Your task to perform on an android device: What is the recent news? Image 0: 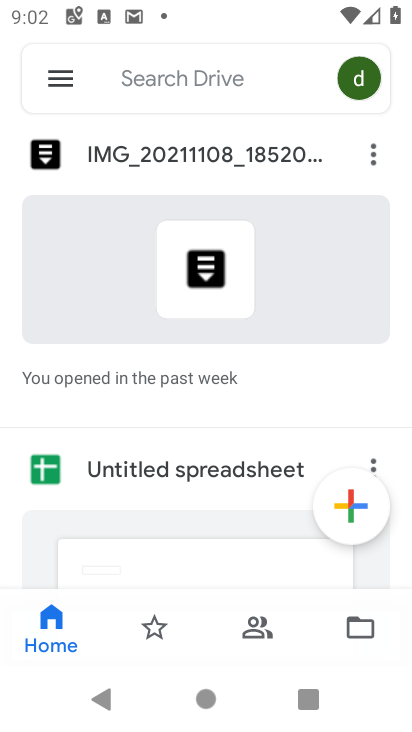
Step 0: press home button
Your task to perform on an android device: What is the recent news? Image 1: 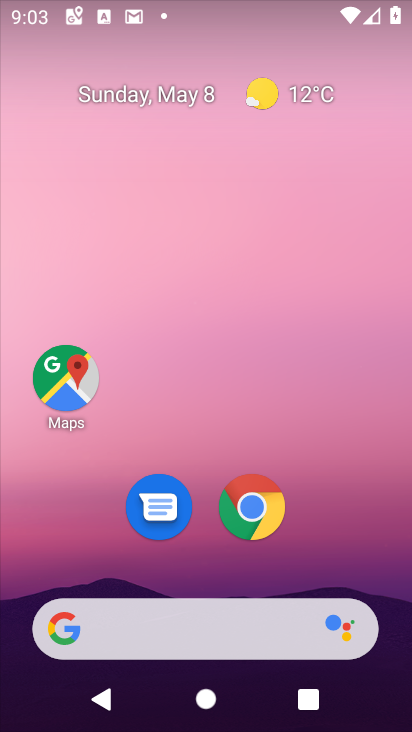
Step 1: click (271, 628)
Your task to perform on an android device: What is the recent news? Image 2: 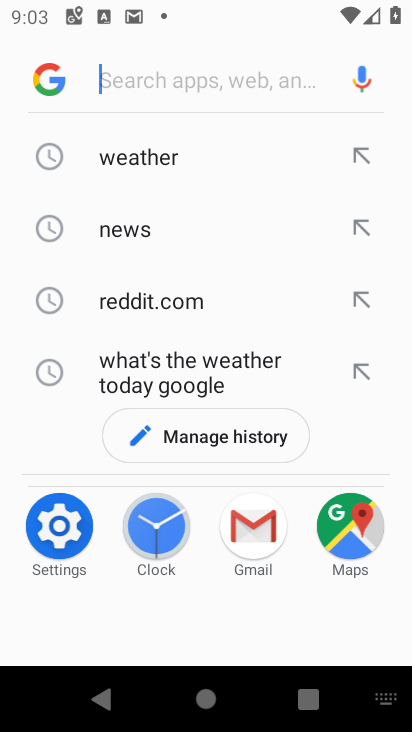
Step 2: type "What is the recent news?"
Your task to perform on an android device: What is the recent news? Image 3: 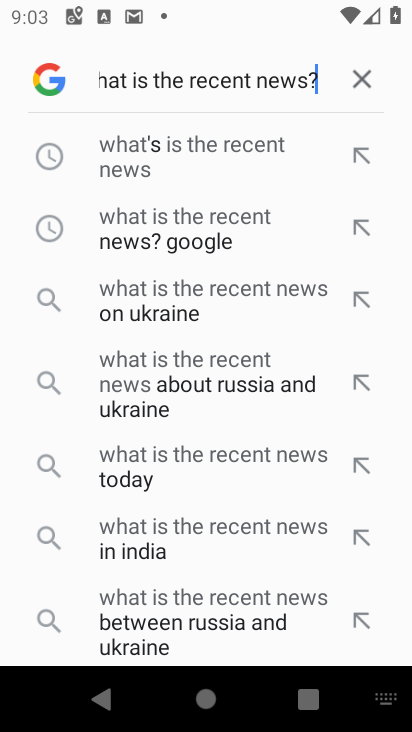
Step 3: click (153, 157)
Your task to perform on an android device: What is the recent news? Image 4: 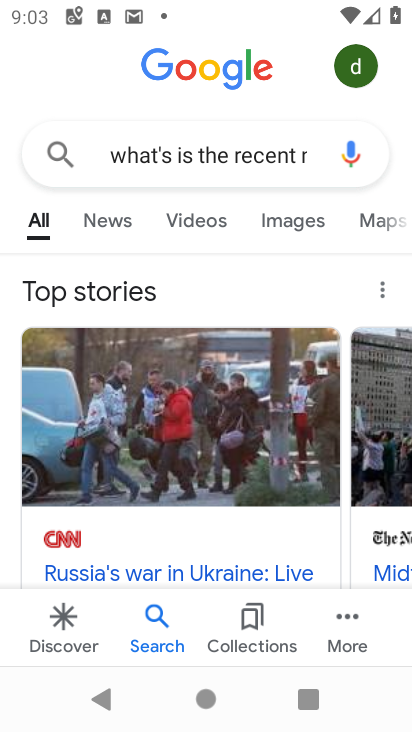
Step 4: task complete